Your task to perform on an android device: open app "Google Photos" Image 0: 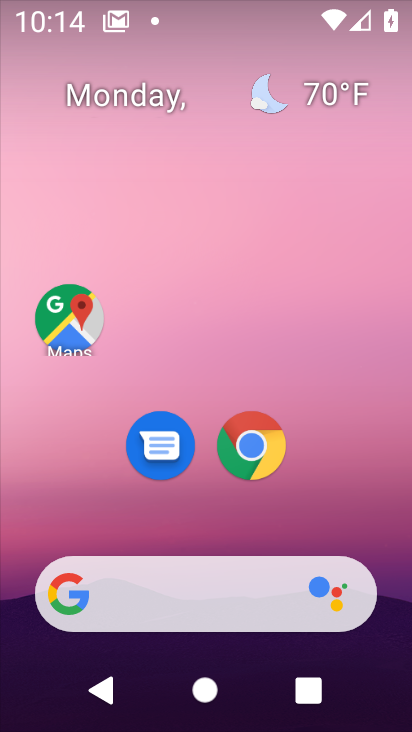
Step 0: drag from (251, 615) to (262, 188)
Your task to perform on an android device: open app "Google Photos" Image 1: 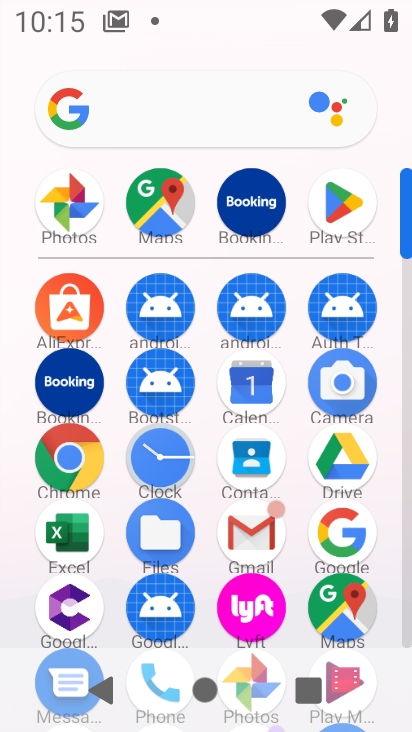
Step 1: drag from (252, 393) to (272, 143)
Your task to perform on an android device: open app "Google Photos" Image 2: 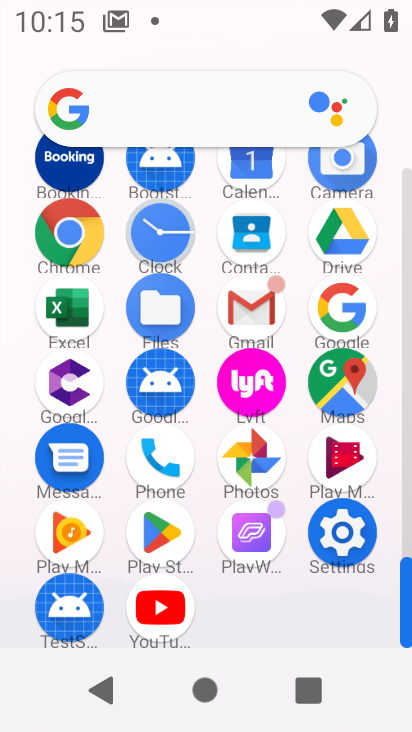
Step 2: click (175, 549)
Your task to perform on an android device: open app "Google Photos" Image 3: 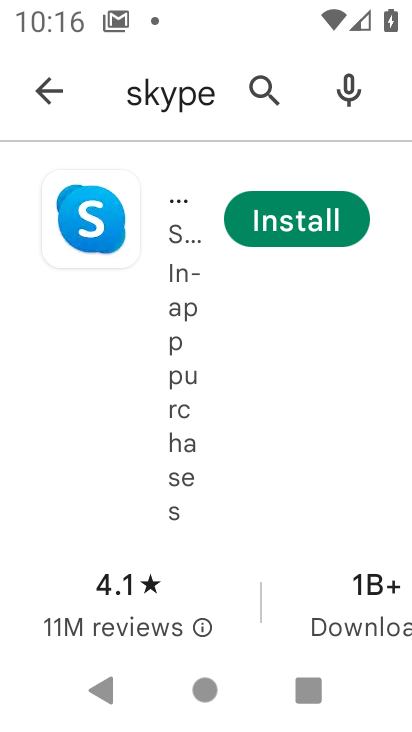
Step 3: press home button
Your task to perform on an android device: open app "Google Photos" Image 4: 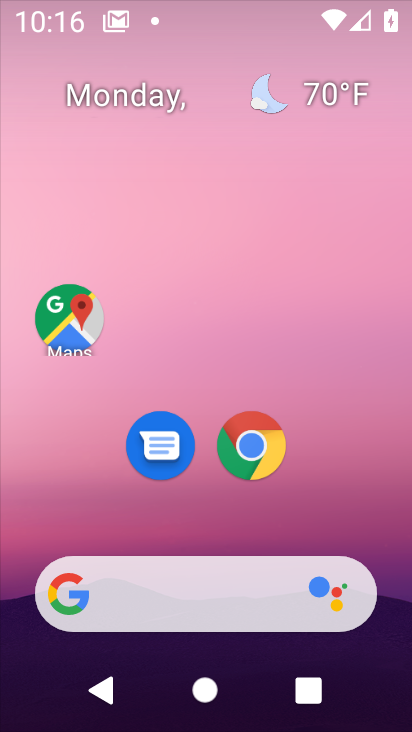
Step 4: drag from (275, 649) to (284, 203)
Your task to perform on an android device: open app "Google Photos" Image 5: 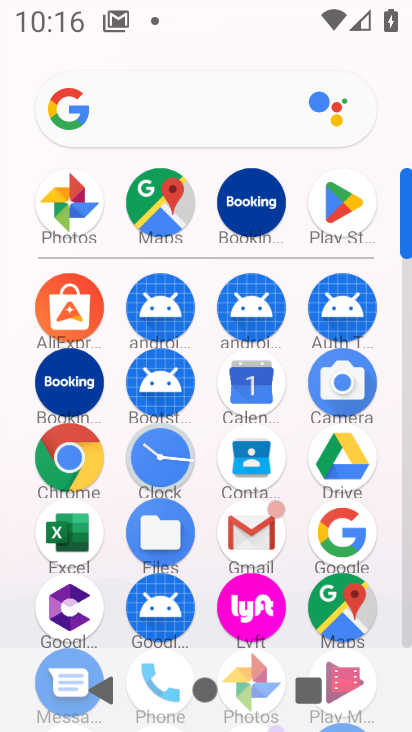
Step 5: drag from (285, 520) to (325, 233)
Your task to perform on an android device: open app "Google Photos" Image 6: 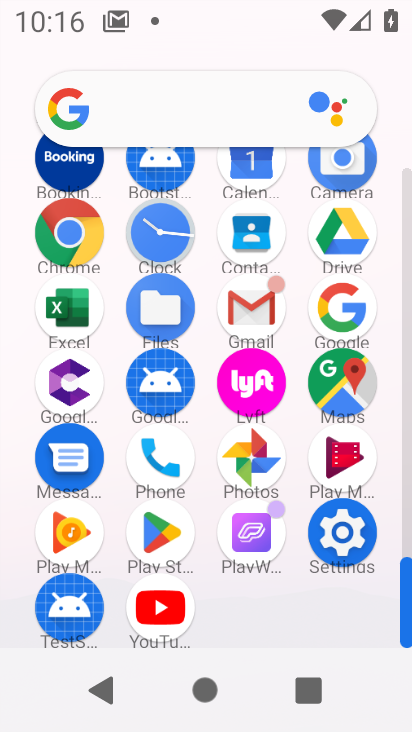
Step 6: click (258, 472)
Your task to perform on an android device: open app "Google Photos" Image 7: 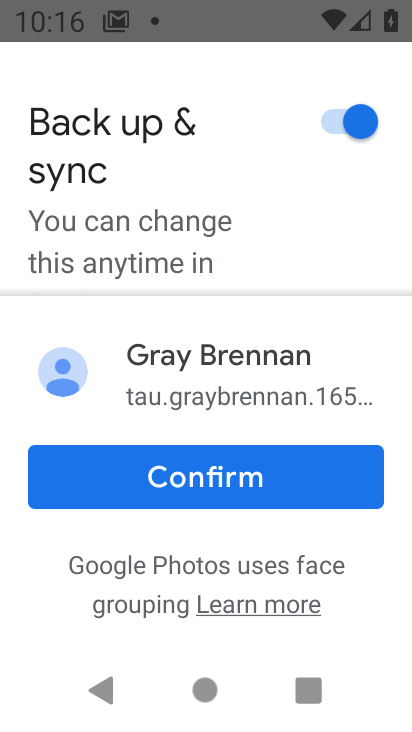
Step 7: click (229, 476)
Your task to perform on an android device: open app "Google Photos" Image 8: 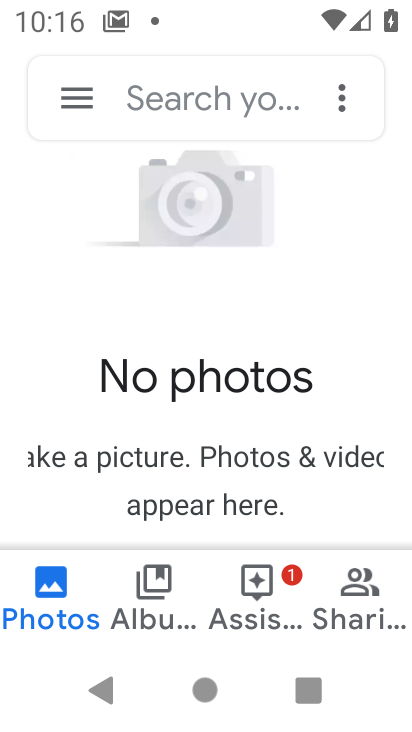
Step 8: task complete